Your task to perform on an android device: Search for seafood restaurants on Google Maps Image 0: 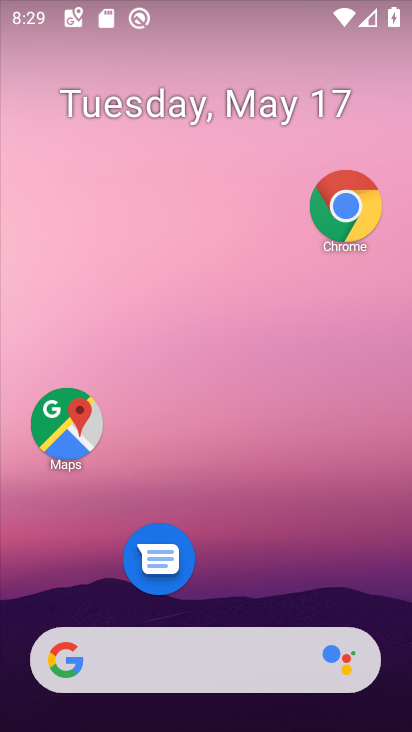
Step 0: drag from (224, 668) to (256, 89)
Your task to perform on an android device: Search for seafood restaurants on Google Maps Image 1: 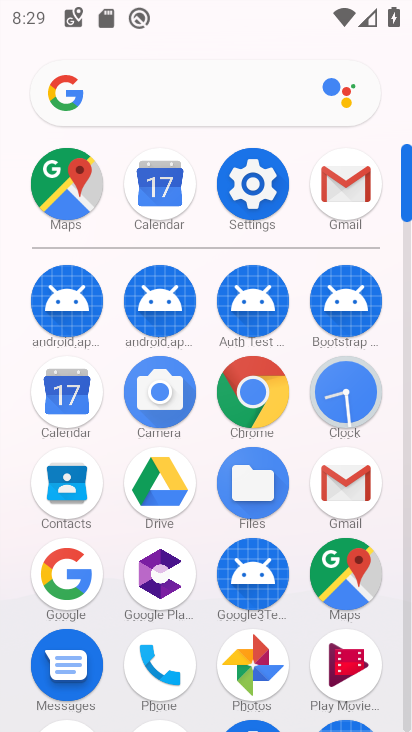
Step 1: click (339, 564)
Your task to perform on an android device: Search for seafood restaurants on Google Maps Image 2: 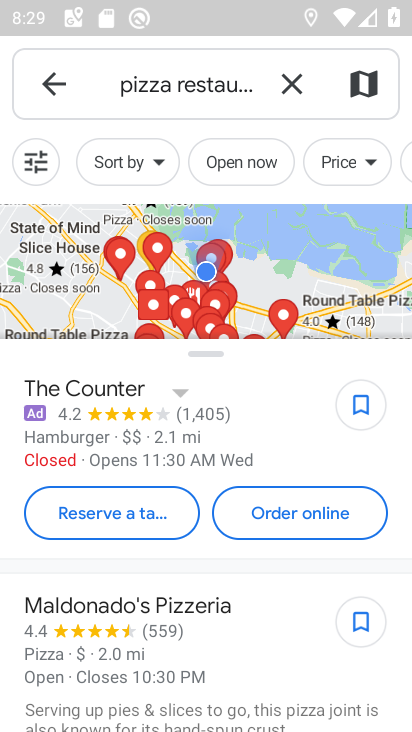
Step 2: click (288, 85)
Your task to perform on an android device: Search for seafood restaurants on Google Maps Image 3: 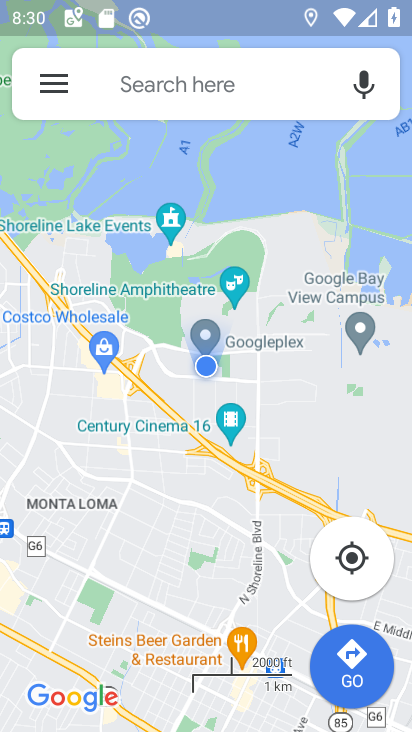
Step 3: click (245, 96)
Your task to perform on an android device: Search for seafood restaurants on Google Maps Image 4: 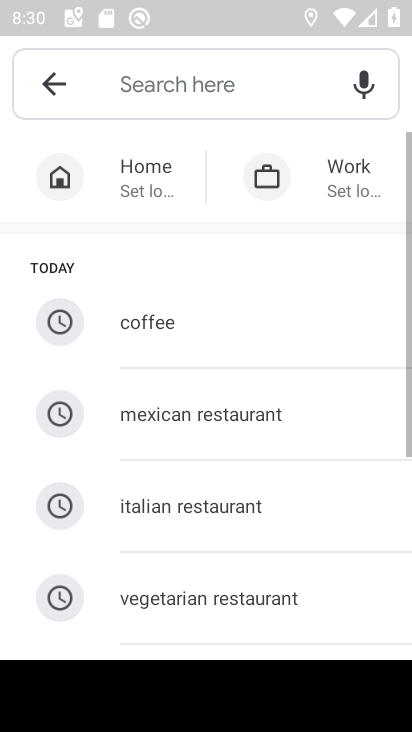
Step 4: drag from (203, 529) to (221, 269)
Your task to perform on an android device: Search for seafood restaurants on Google Maps Image 5: 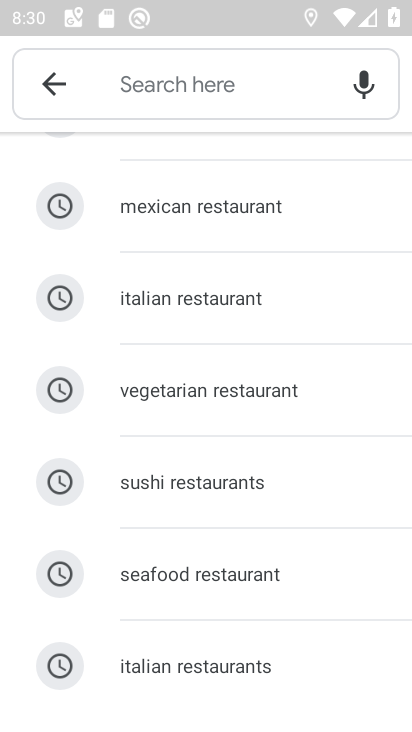
Step 5: click (204, 582)
Your task to perform on an android device: Search for seafood restaurants on Google Maps Image 6: 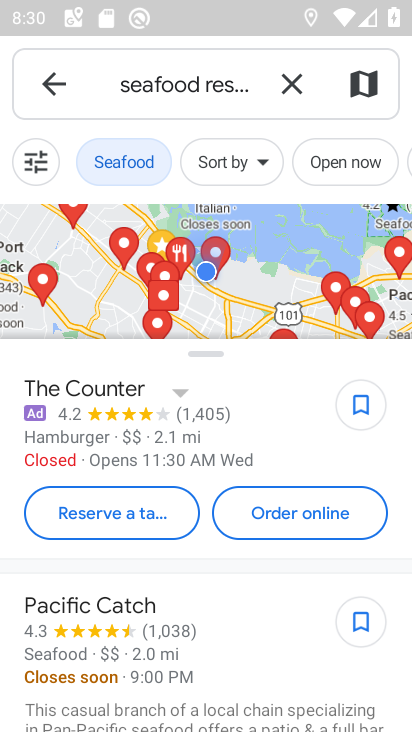
Step 6: task complete